Your task to perform on an android device: all mails in gmail Image 0: 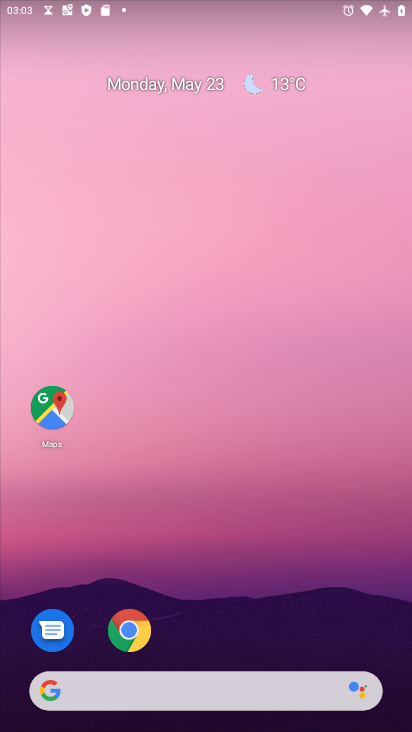
Step 0: drag from (211, 245) to (179, 1)
Your task to perform on an android device: all mails in gmail Image 1: 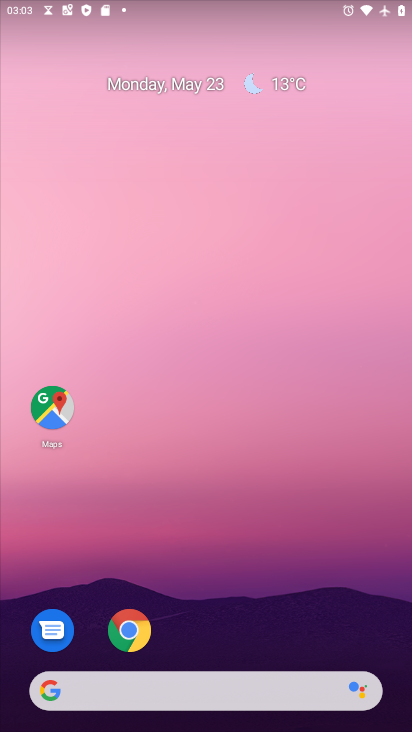
Step 1: drag from (290, 584) to (155, 0)
Your task to perform on an android device: all mails in gmail Image 2: 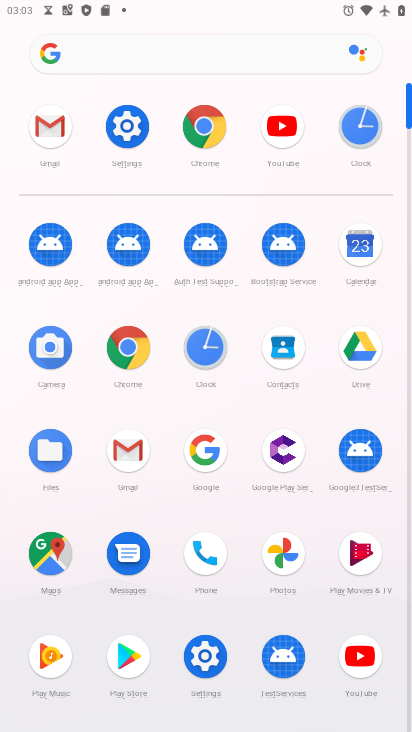
Step 2: click (58, 124)
Your task to perform on an android device: all mails in gmail Image 3: 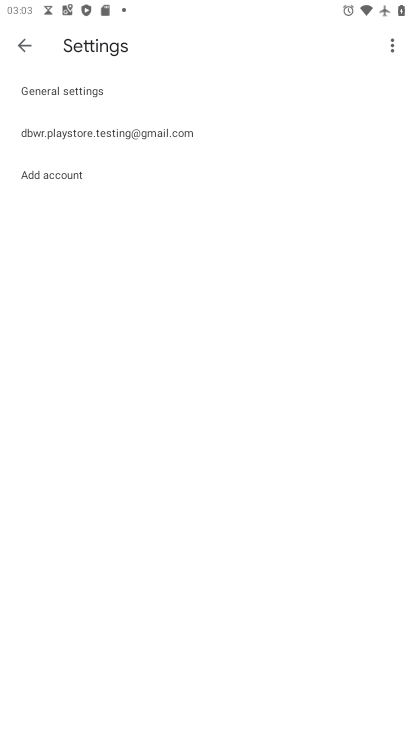
Step 3: click (26, 39)
Your task to perform on an android device: all mails in gmail Image 4: 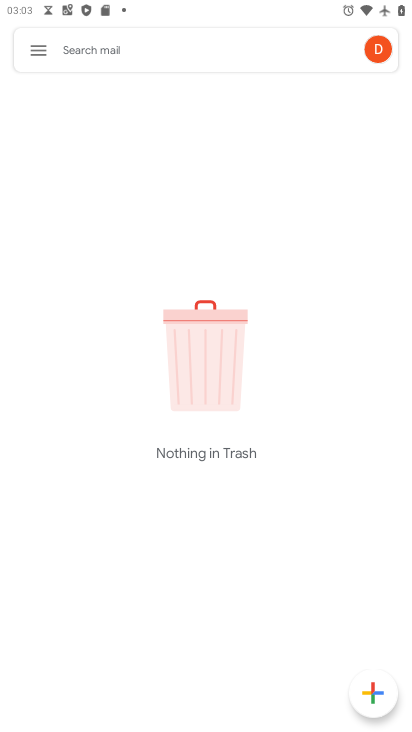
Step 4: click (38, 46)
Your task to perform on an android device: all mails in gmail Image 5: 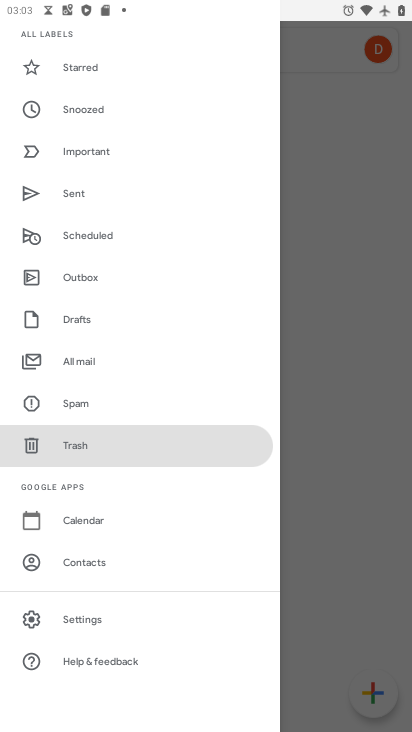
Step 5: click (187, 356)
Your task to perform on an android device: all mails in gmail Image 6: 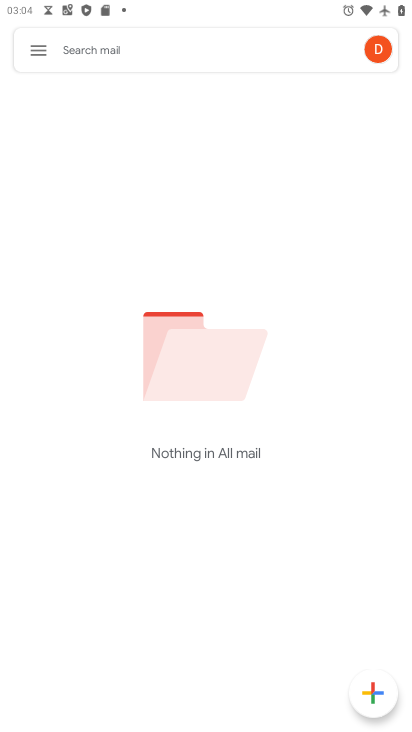
Step 6: task complete